Your task to perform on an android device: make emails show in primary in the gmail app Image 0: 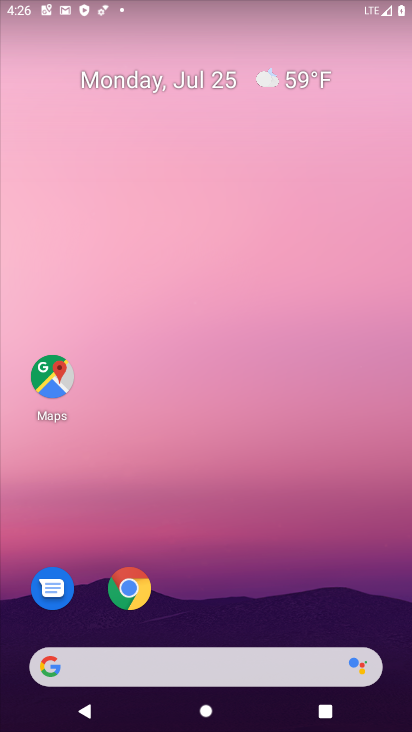
Step 0: drag from (355, 577) to (399, 93)
Your task to perform on an android device: make emails show in primary in the gmail app Image 1: 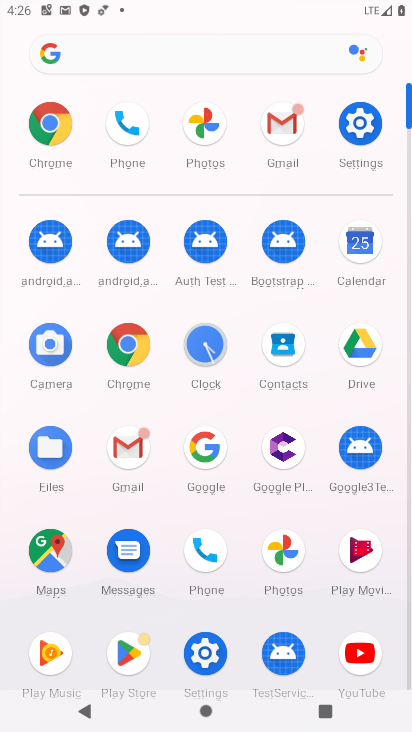
Step 1: click (128, 434)
Your task to perform on an android device: make emails show in primary in the gmail app Image 2: 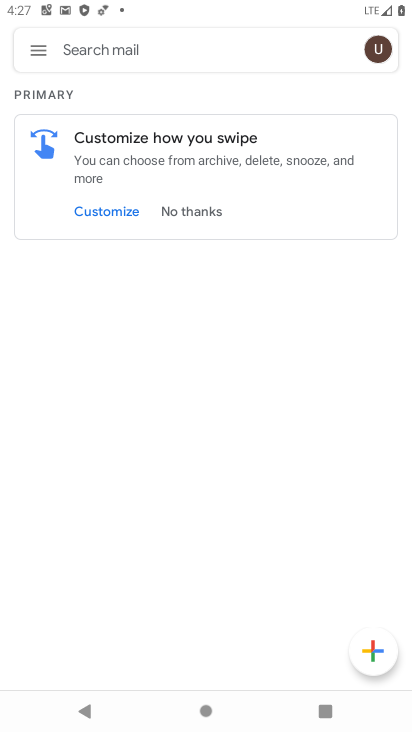
Step 2: click (41, 44)
Your task to perform on an android device: make emails show in primary in the gmail app Image 3: 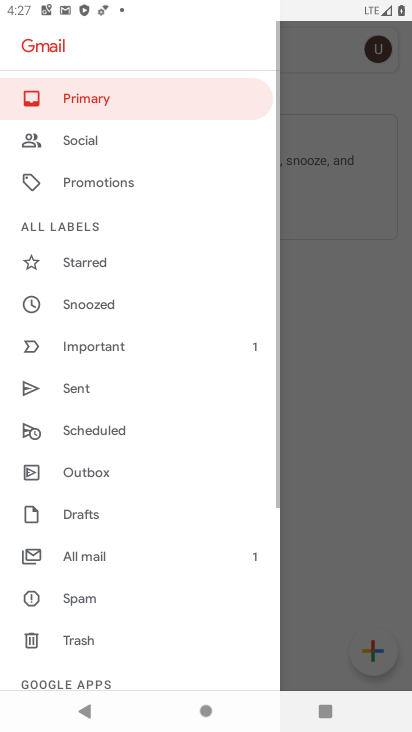
Step 3: click (129, 101)
Your task to perform on an android device: make emails show in primary in the gmail app Image 4: 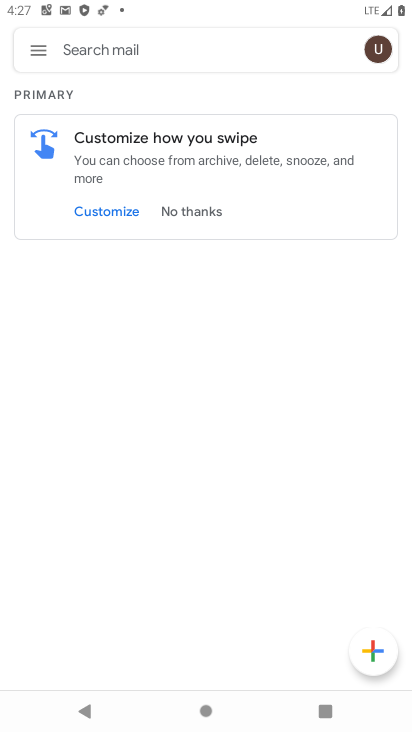
Step 4: task complete